Your task to perform on an android device: Open battery settings Image 0: 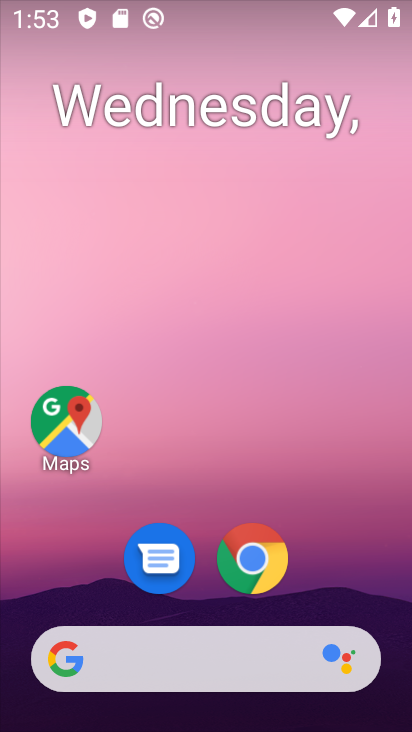
Step 0: drag from (362, 581) to (372, 195)
Your task to perform on an android device: Open battery settings Image 1: 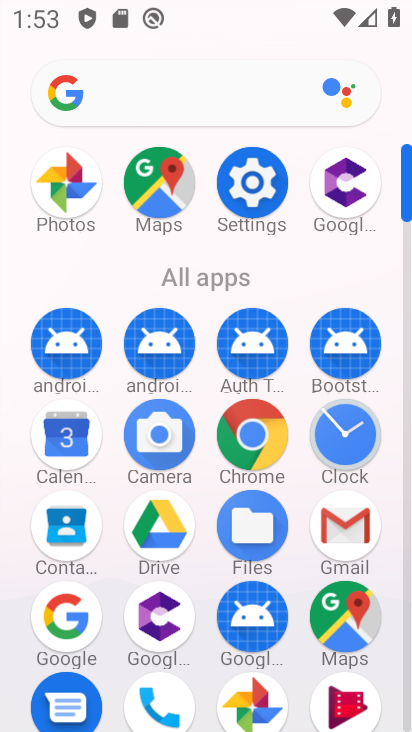
Step 1: click (263, 176)
Your task to perform on an android device: Open battery settings Image 2: 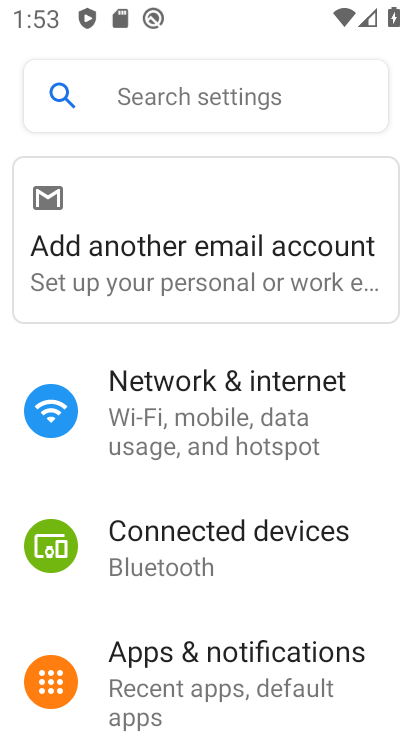
Step 2: drag from (241, 597) to (234, 191)
Your task to perform on an android device: Open battery settings Image 3: 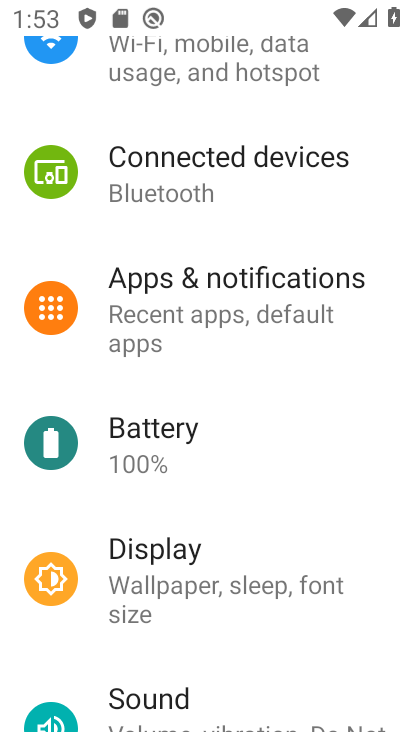
Step 3: click (223, 438)
Your task to perform on an android device: Open battery settings Image 4: 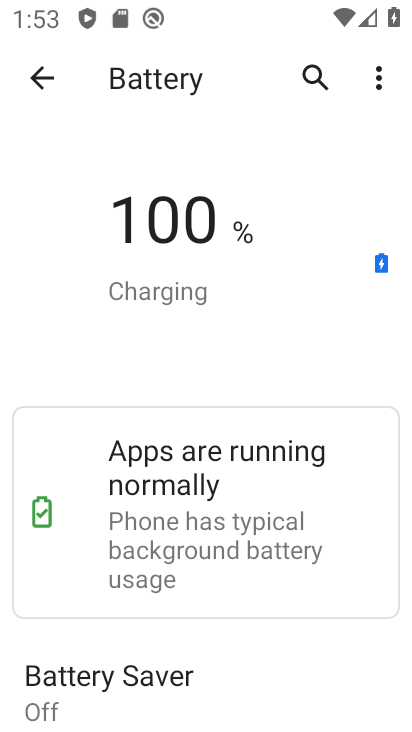
Step 4: task complete